Your task to perform on an android device: change text size in settings app Image 0: 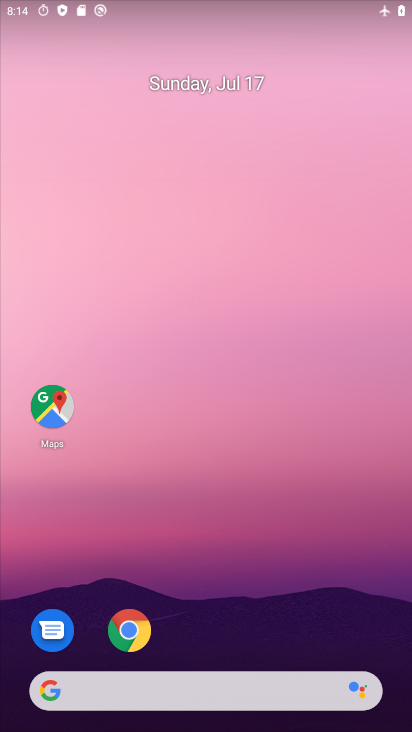
Step 0: drag from (65, 507) to (120, 267)
Your task to perform on an android device: change text size in settings app Image 1: 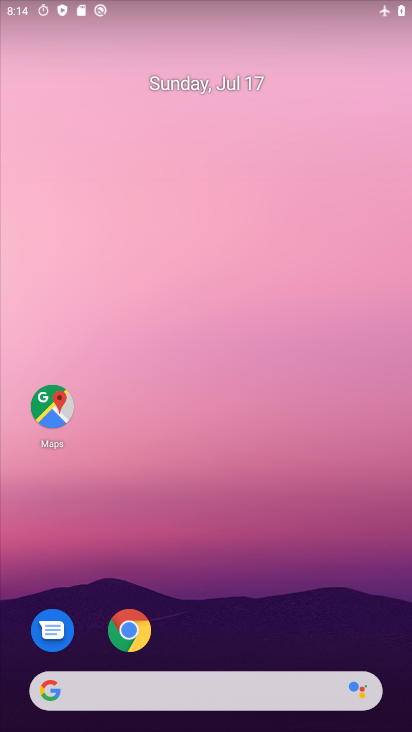
Step 1: drag from (23, 698) to (302, 53)
Your task to perform on an android device: change text size in settings app Image 2: 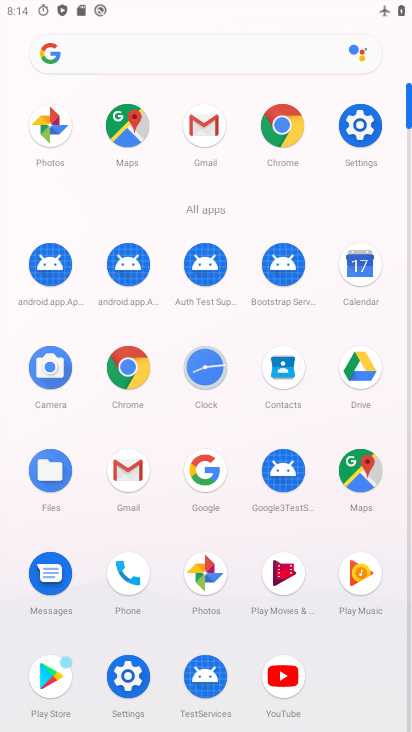
Step 2: click (127, 688)
Your task to perform on an android device: change text size in settings app Image 3: 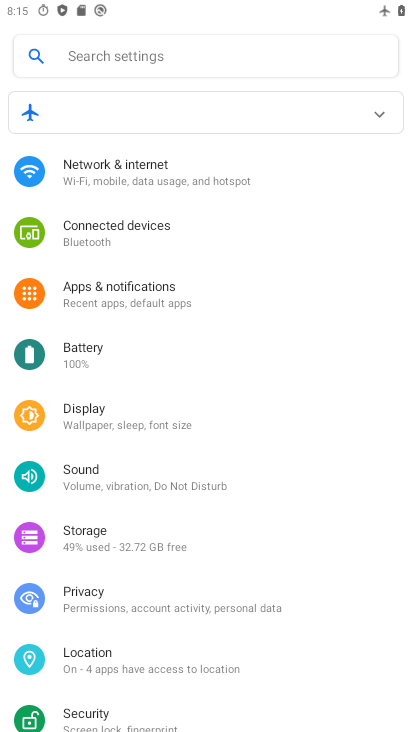
Step 3: drag from (327, 651) to (347, 437)
Your task to perform on an android device: change text size in settings app Image 4: 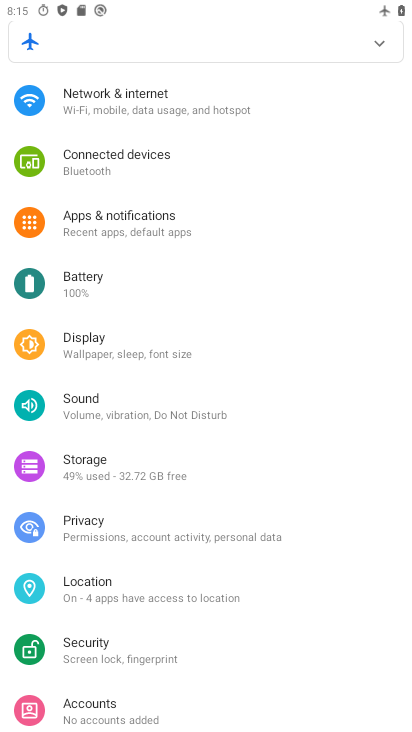
Step 4: drag from (296, 111) to (321, 404)
Your task to perform on an android device: change text size in settings app Image 5: 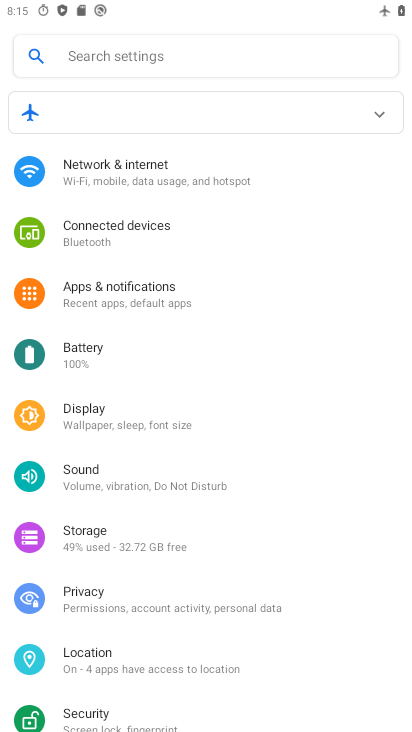
Step 5: drag from (364, 681) to (375, 423)
Your task to perform on an android device: change text size in settings app Image 6: 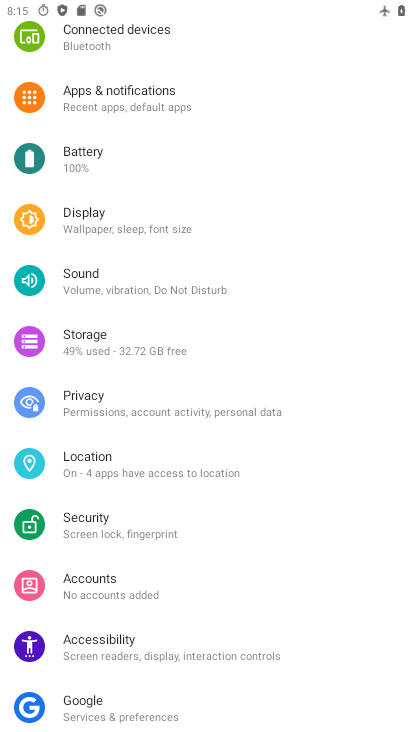
Step 6: drag from (359, 684) to (369, 466)
Your task to perform on an android device: change text size in settings app Image 7: 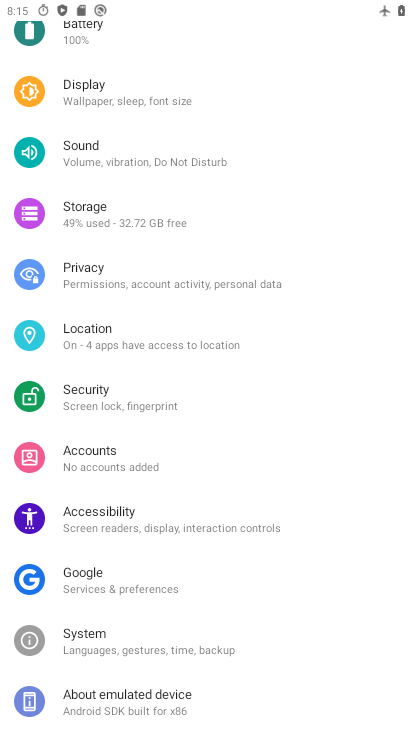
Step 7: drag from (322, 125) to (363, 496)
Your task to perform on an android device: change text size in settings app Image 8: 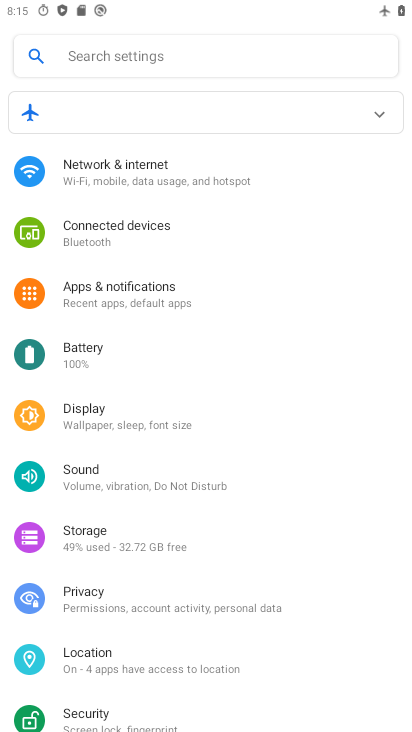
Step 8: click (163, 411)
Your task to perform on an android device: change text size in settings app Image 9: 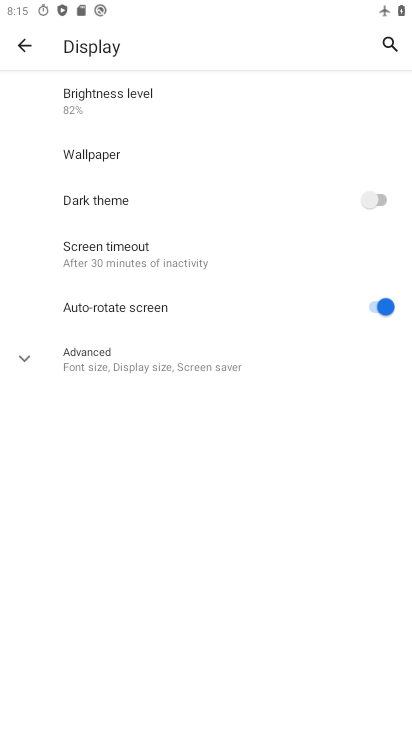
Step 9: click (108, 366)
Your task to perform on an android device: change text size in settings app Image 10: 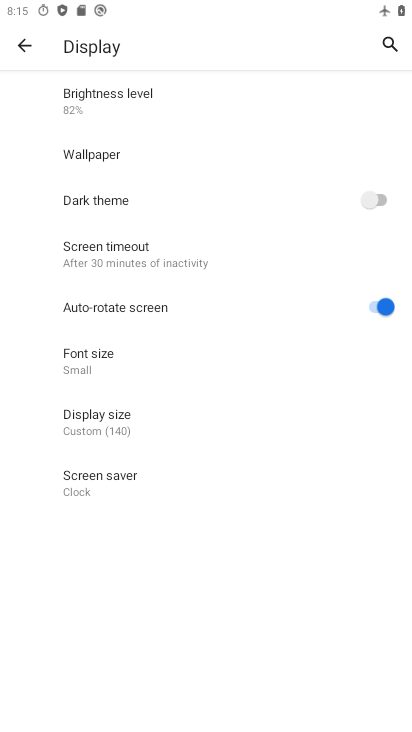
Step 10: click (88, 357)
Your task to perform on an android device: change text size in settings app Image 11: 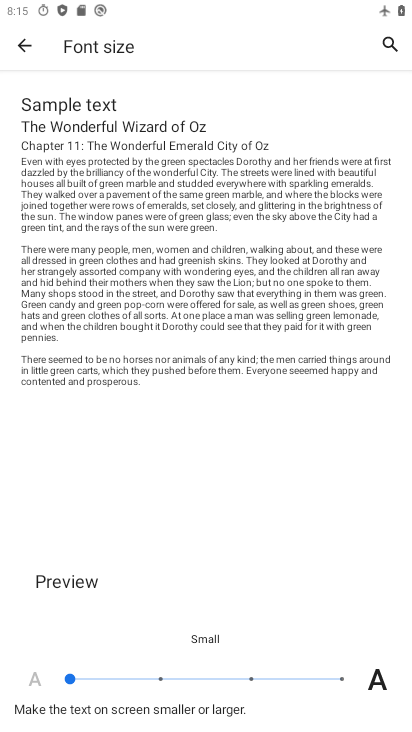
Step 11: click (168, 673)
Your task to perform on an android device: change text size in settings app Image 12: 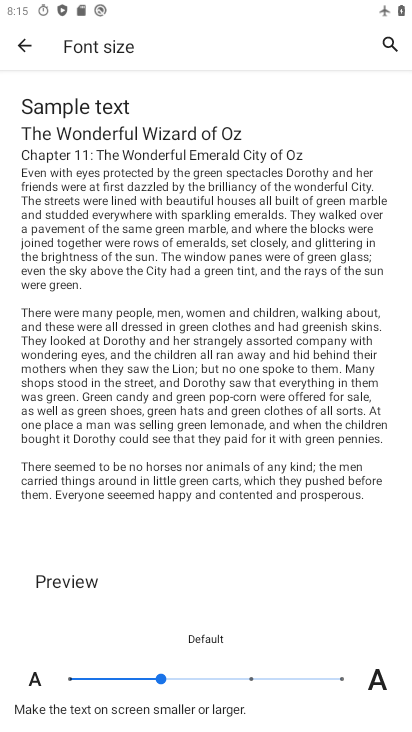
Step 12: click (159, 679)
Your task to perform on an android device: change text size in settings app Image 13: 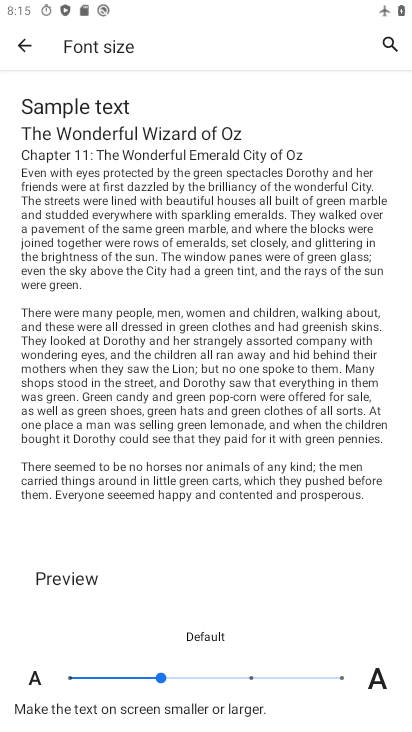
Step 13: task complete